Your task to perform on an android device: open chrome and create a bookmark for the current page Image 0: 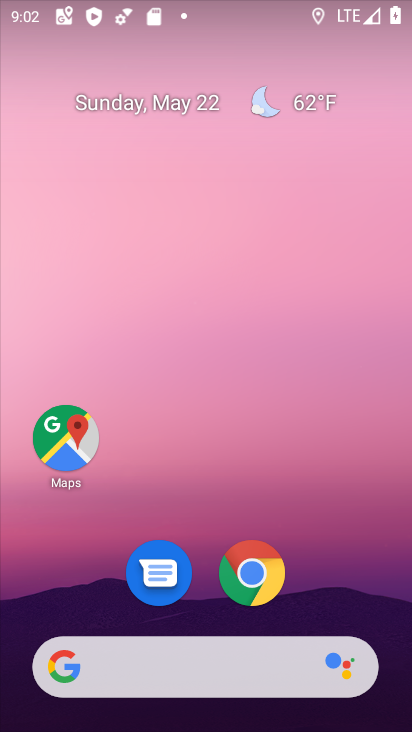
Step 0: drag from (319, 701) to (317, 16)
Your task to perform on an android device: open chrome and create a bookmark for the current page Image 1: 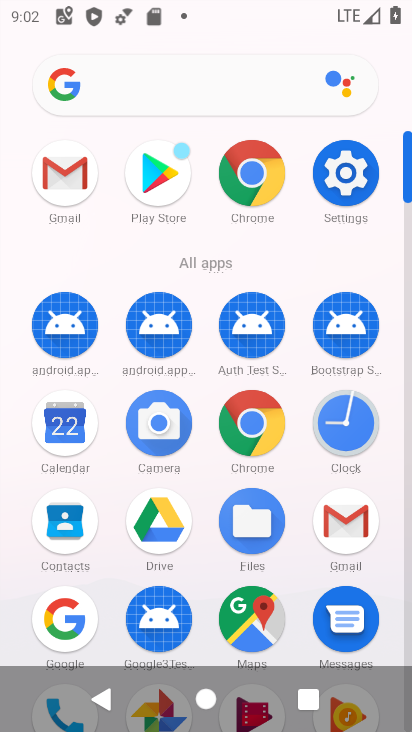
Step 1: click (261, 412)
Your task to perform on an android device: open chrome and create a bookmark for the current page Image 2: 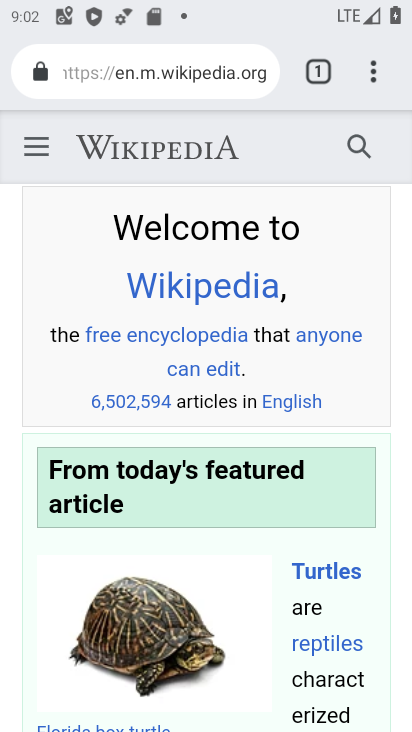
Step 2: click (369, 59)
Your task to perform on an android device: open chrome and create a bookmark for the current page Image 3: 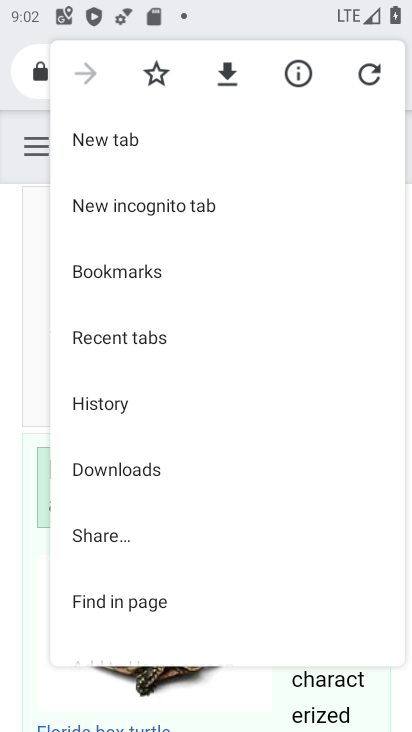
Step 3: click (167, 69)
Your task to perform on an android device: open chrome and create a bookmark for the current page Image 4: 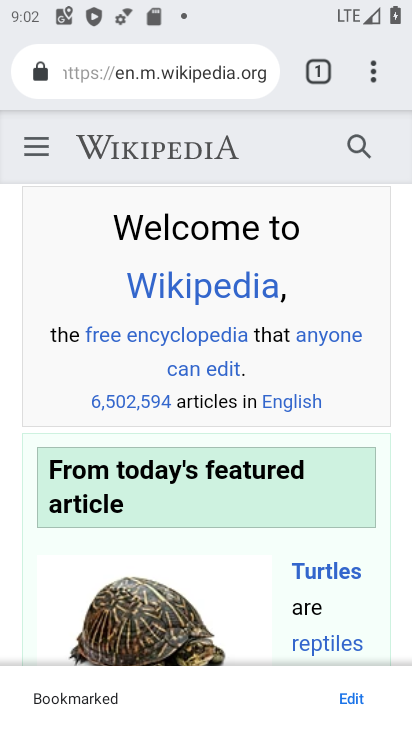
Step 4: task complete